Your task to perform on an android device: Open calendar and show me the third week of next month Image 0: 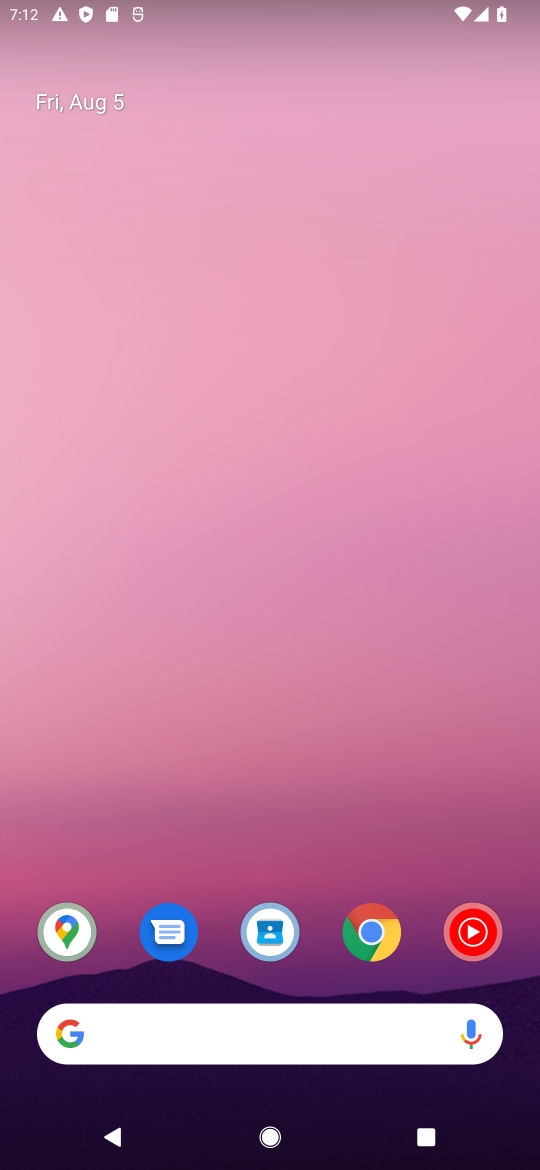
Step 0: drag from (215, 1027) to (356, 91)
Your task to perform on an android device: Open calendar and show me the third week of next month Image 1: 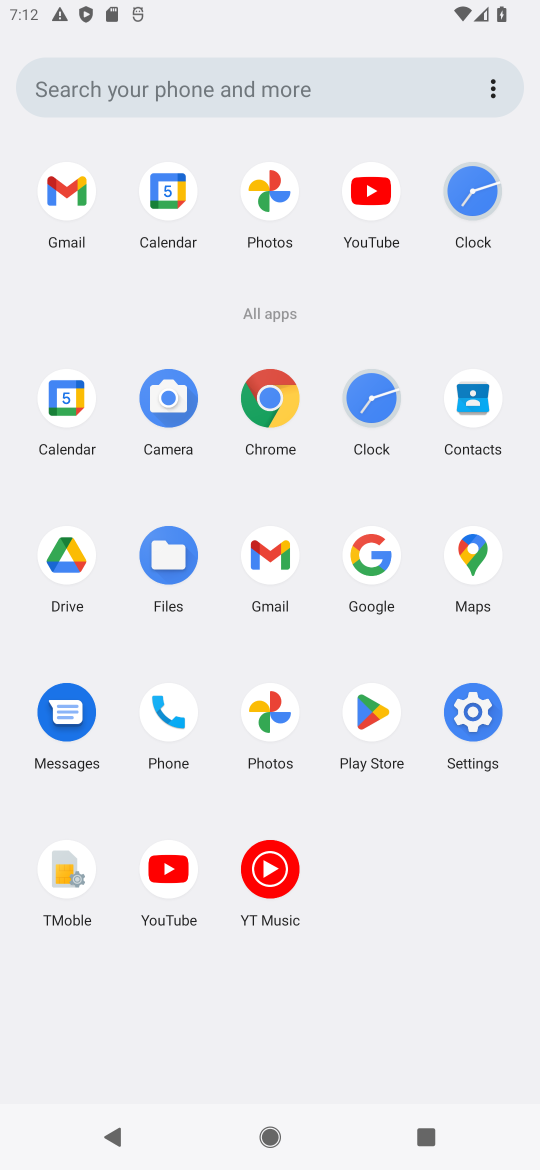
Step 1: click (65, 398)
Your task to perform on an android device: Open calendar and show me the third week of next month Image 2: 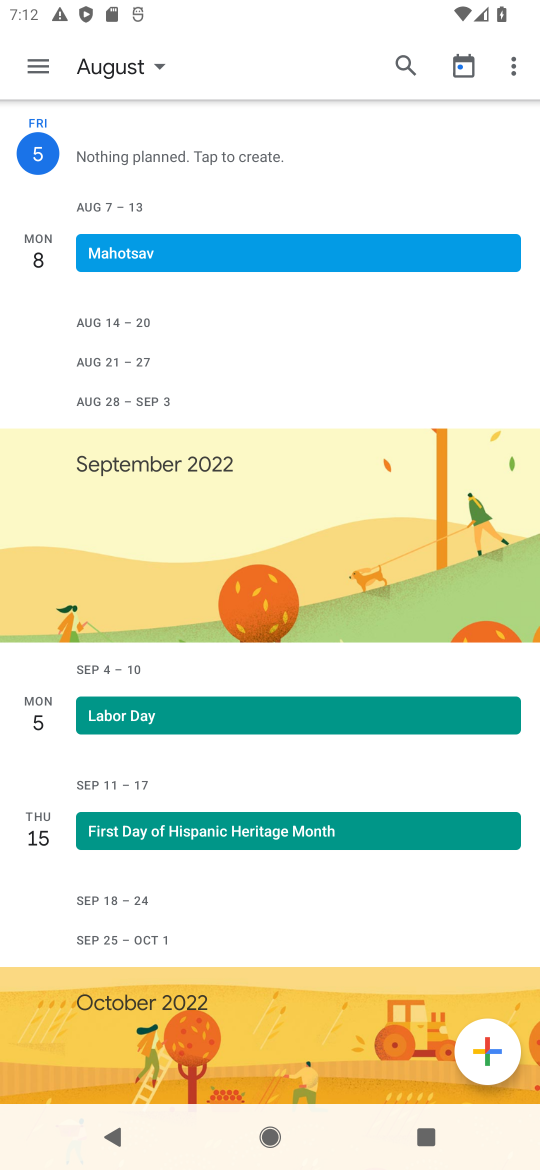
Step 2: click (464, 69)
Your task to perform on an android device: Open calendar and show me the third week of next month Image 3: 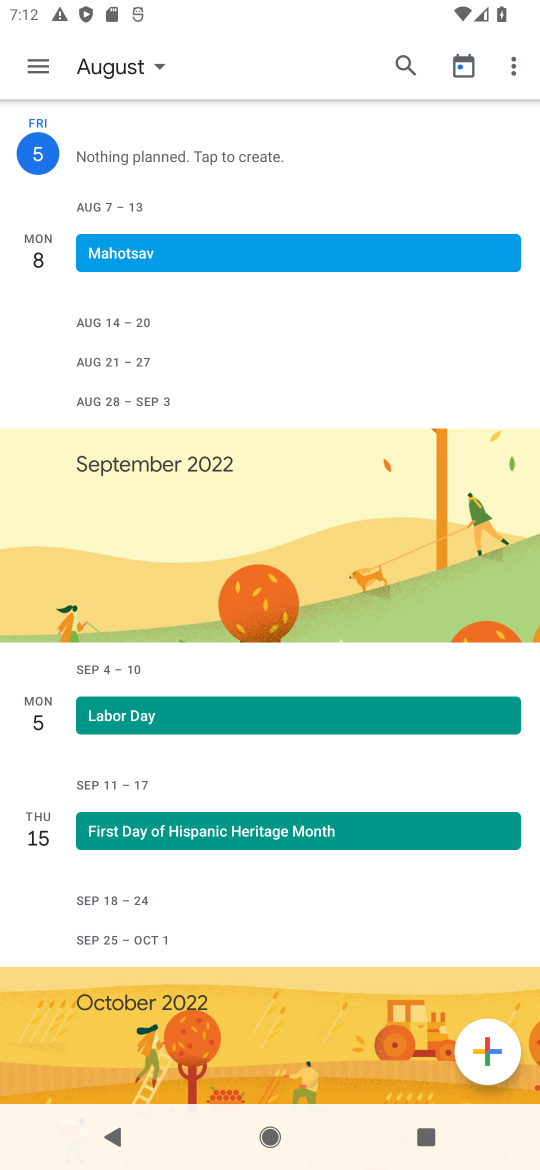
Step 3: click (160, 68)
Your task to perform on an android device: Open calendar and show me the third week of next month Image 4: 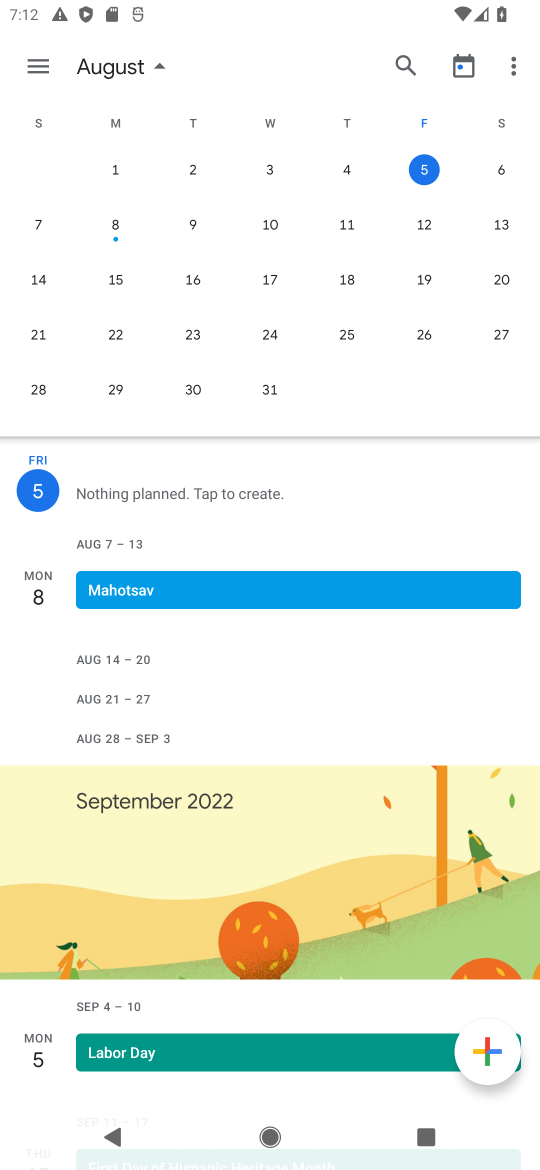
Step 4: drag from (502, 311) to (7, 295)
Your task to perform on an android device: Open calendar and show me the third week of next month Image 5: 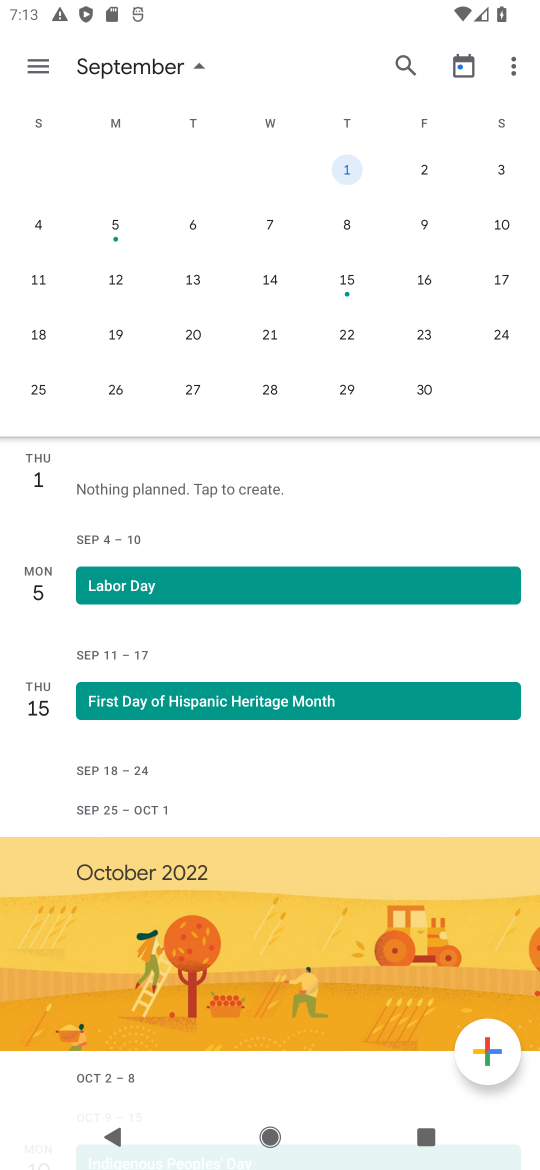
Step 5: click (123, 340)
Your task to perform on an android device: Open calendar and show me the third week of next month Image 6: 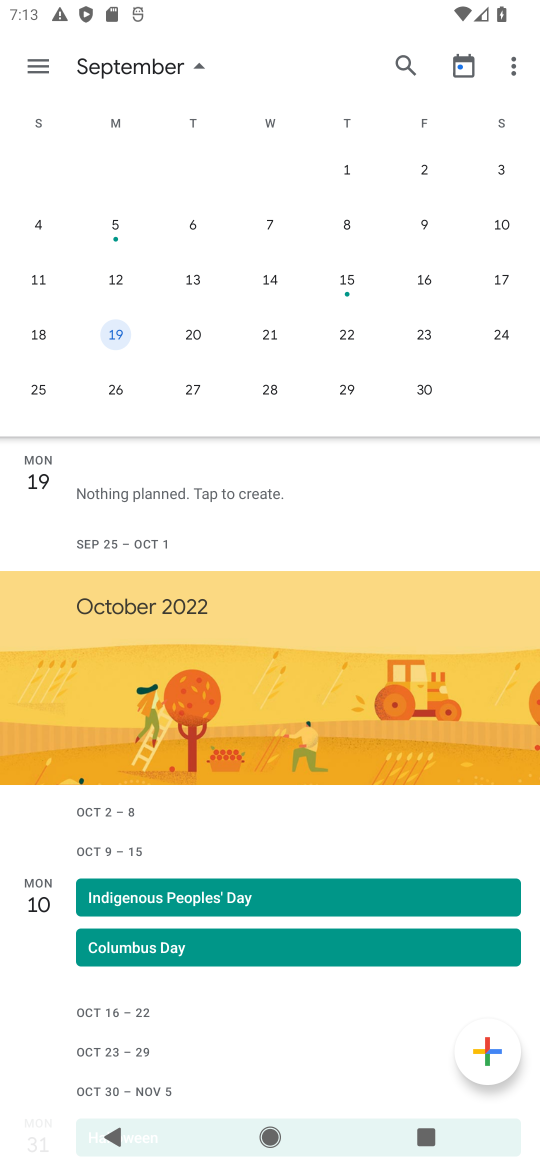
Step 6: click (45, 67)
Your task to perform on an android device: Open calendar and show me the third week of next month Image 7: 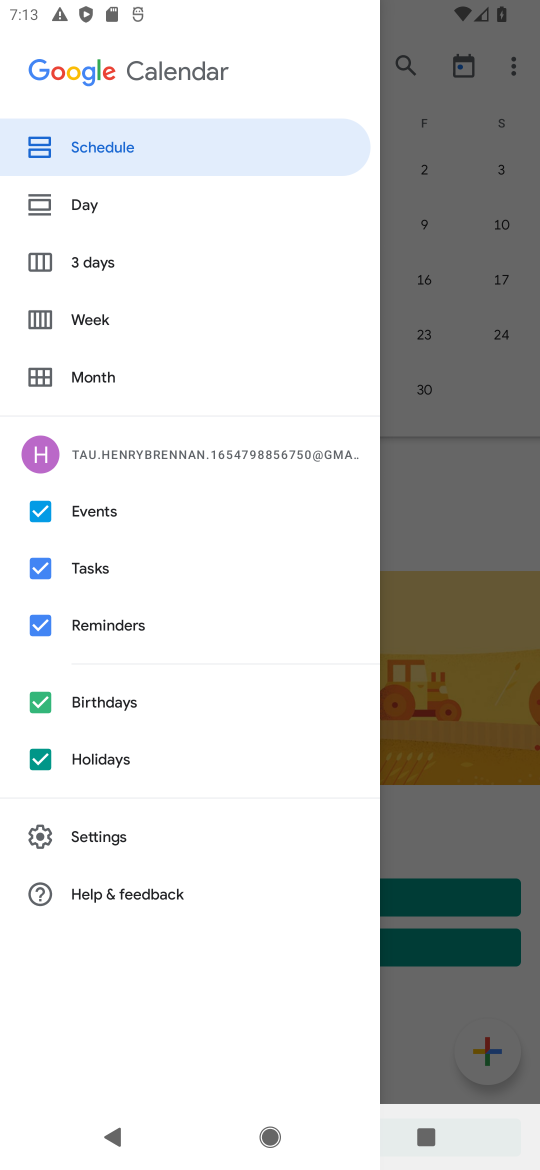
Step 7: click (87, 318)
Your task to perform on an android device: Open calendar and show me the third week of next month Image 8: 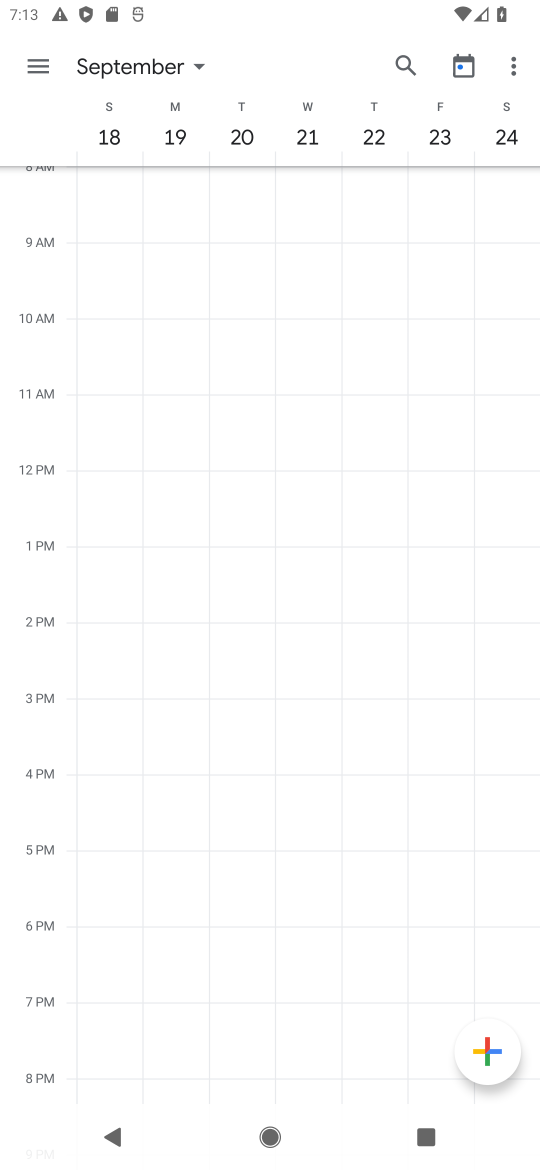
Step 8: task complete